Your task to perform on an android device: turn off improve location accuracy Image 0: 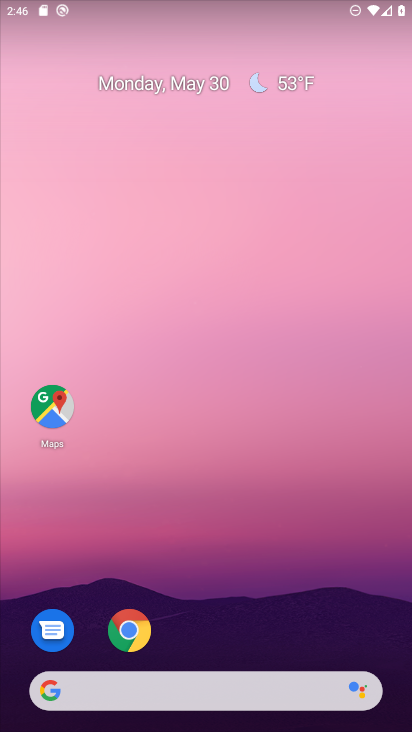
Step 0: click (294, 0)
Your task to perform on an android device: turn off improve location accuracy Image 1: 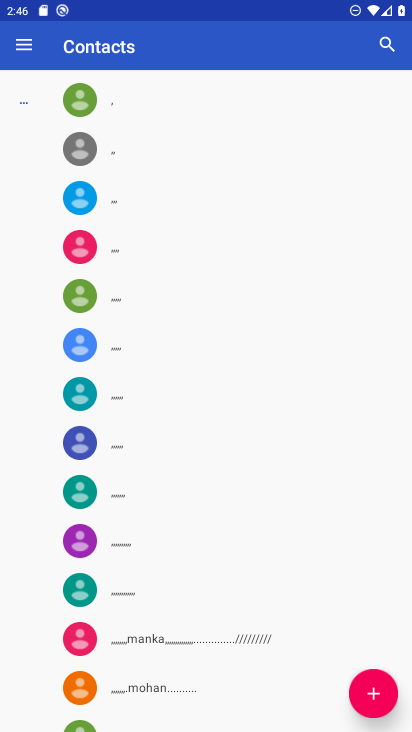
Step 1: press home button
Your task to perform on an android device: turn off improve location accuracy Image 2: 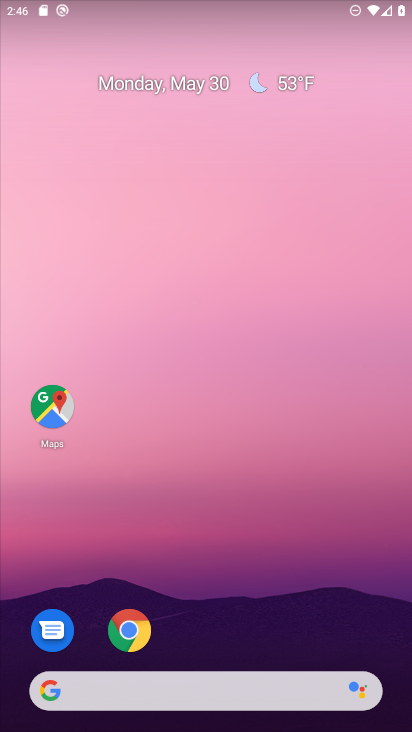
Step 2: drag from (240, 693) to (223, 134)
Your task to perform on an android device: turn off improve location accuracy Image 3: 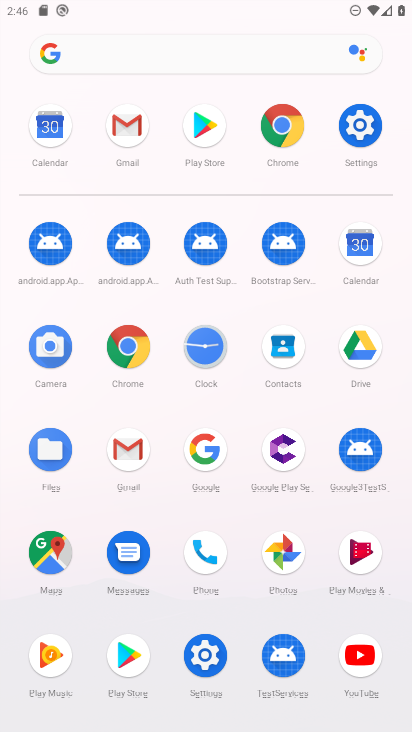
Step 3: click (355, 143)
Your task to perform on an android device: turn off improve location accuracy Image 4: 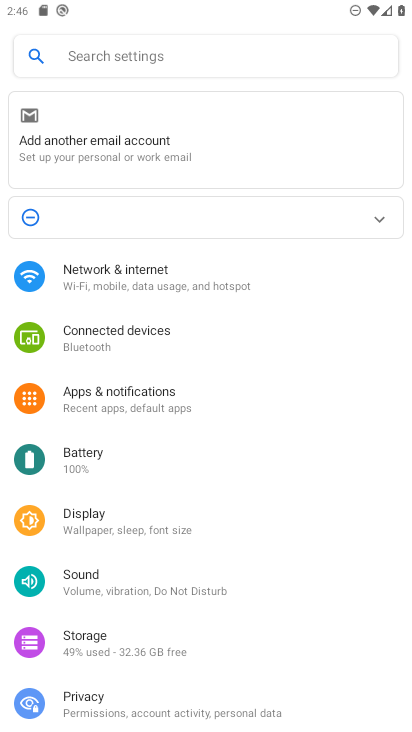
Step 4: drag from (153, 650) to (158, 210)
Your task to perform on an android device: turn off improve location accuracy Image 5: 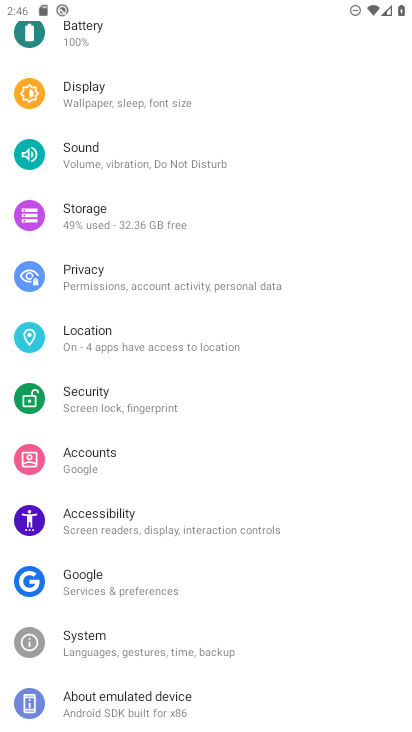
Step 5: click (111, 327)
Your task to perform on an android device: turn off improve location accuracy Image 6: 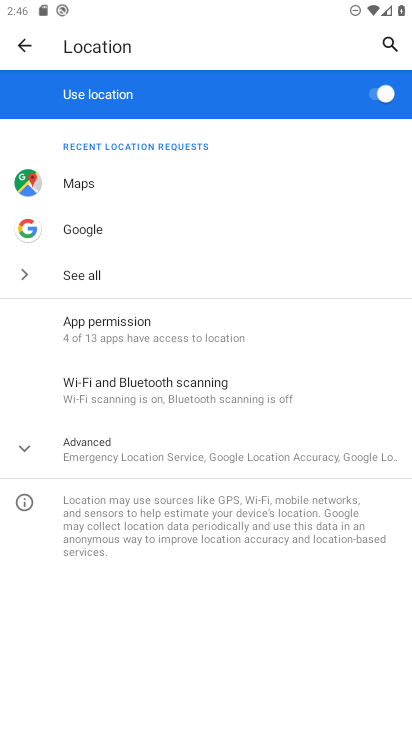
Step 6: click (142, 437)
Your task to perform on an android device: turn off improve location accuracy Image 7: 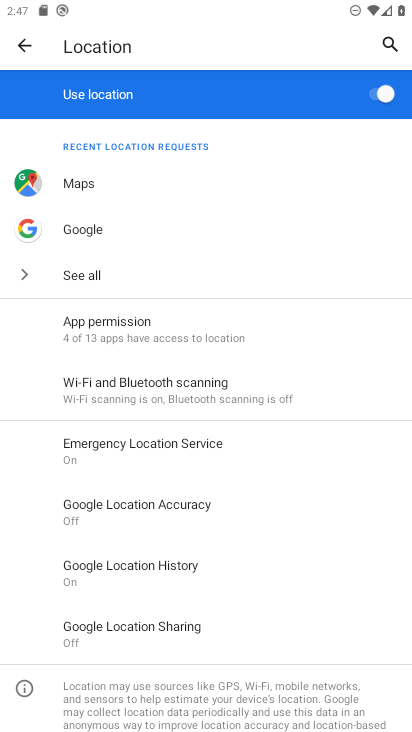
Step 7: click (189, 517)
Your task to perform on an android device: turn off improve location accuracy Image 8: 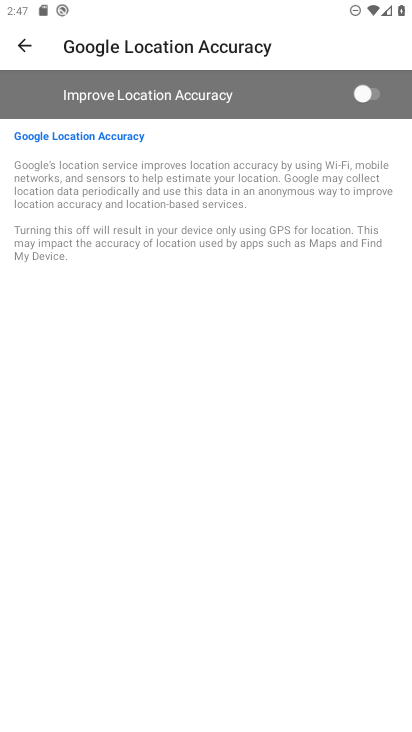
Step 8: task complete